Your task to perform on an android device: allow cookies in the chrome app Image 0: 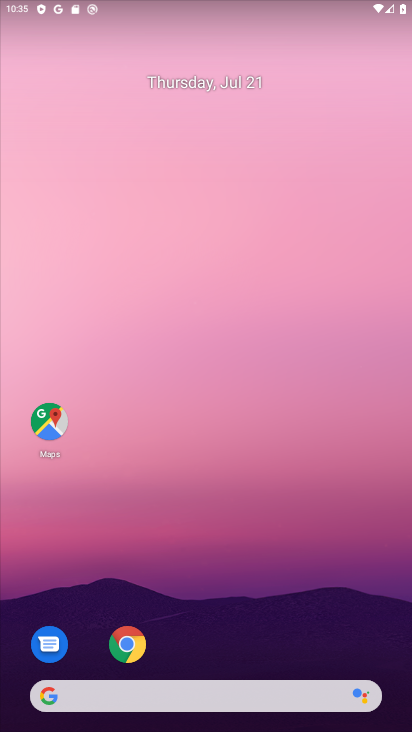
Step 0: click (131, 650)
Your task to perform on an android device: allow cookies in the chrome app Image 1: 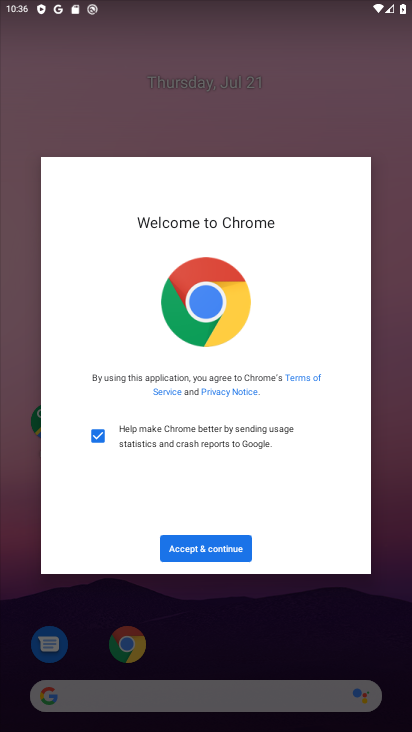
Step 1: click (227, 548)
Your task to perform on an android device: allow cookies in the chrome app Image 2: 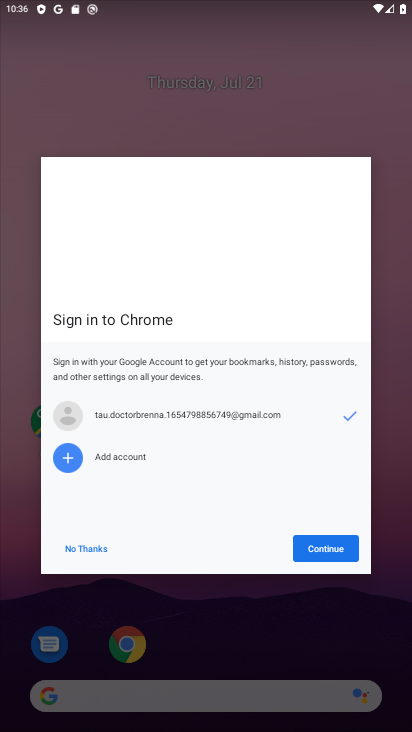
Step 2: click (304, 549)
Your task to perform on an android device: allow cookies in the chrome app Image 3: 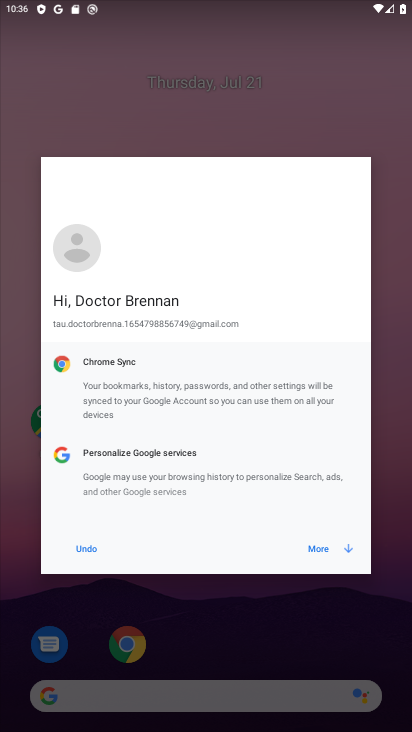
Step 3: click (316, 550)
Your task to perform on an android device: allow cookies in the chrome app Image 4: 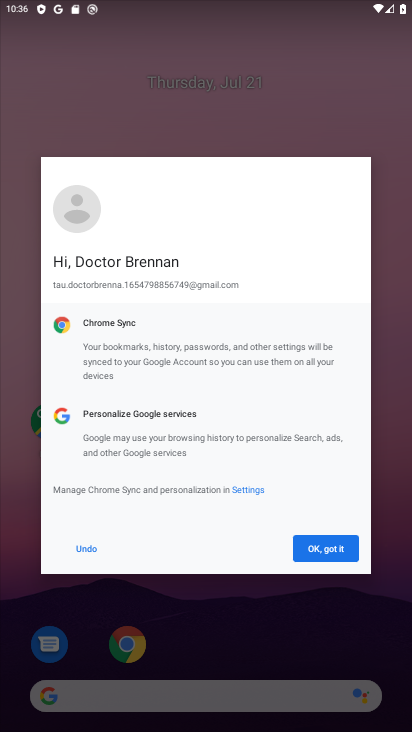
Step 4: click (316, 550)
Your task to perform on an android device: allow cookies in the chrome app Image 5: 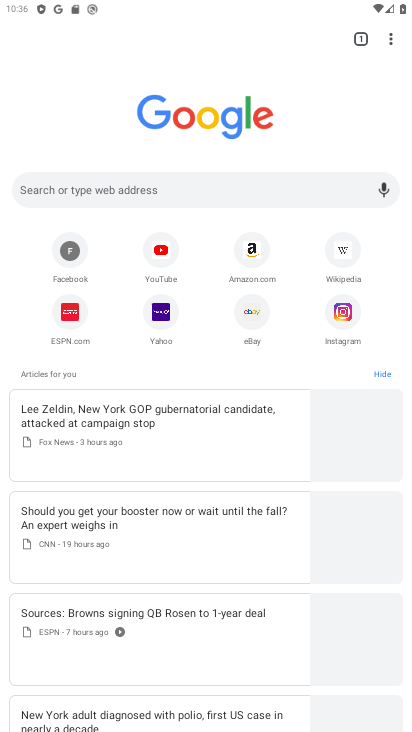
Step 5: click (390, 42)
Your task to perform on an android device: allow cookies in the chrome app Image 6: 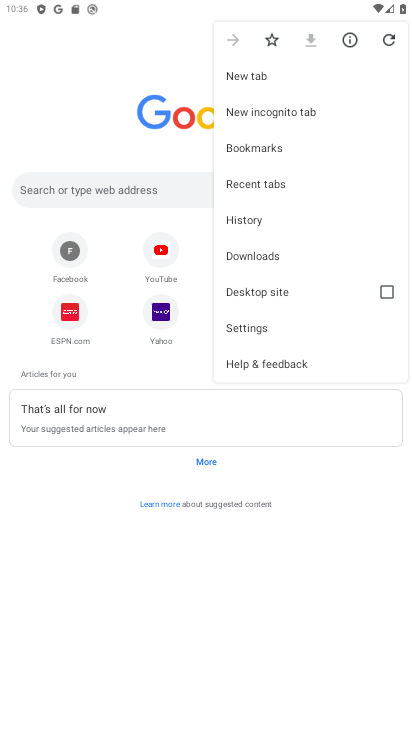
Step 6: click (255, 331)
Your task to perform on an android device: allow cookies in the chrome app Image 7: 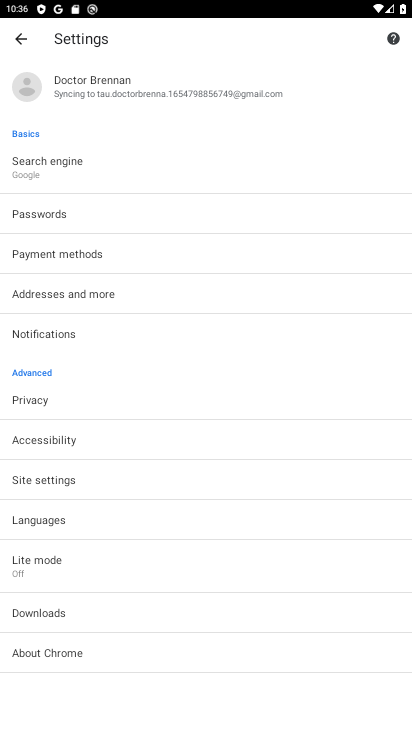
Step 7: click (81, 483)
Your task to perform on an android device: allow cookies in the chrome app Image 8: 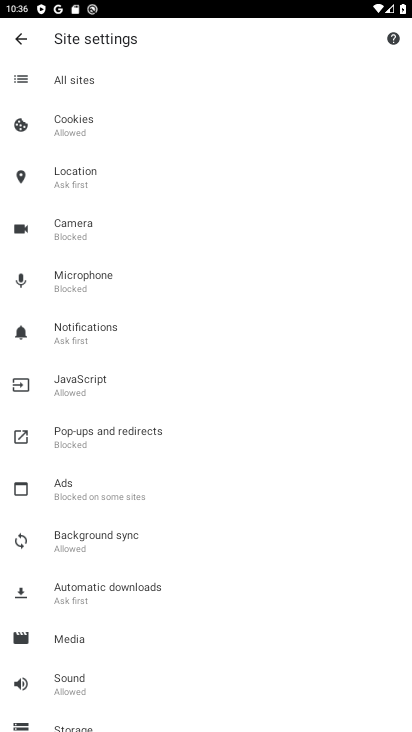
Step 8: click (73, 131)
Your task to perform on an android device: allow cookies in the chrome app Image 9: 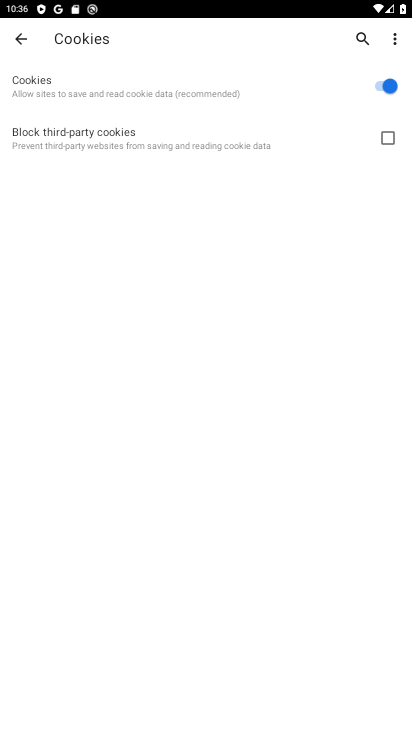
Step 9: task complete